Your task to perform on an android device: empty trash in google photos Image 0: 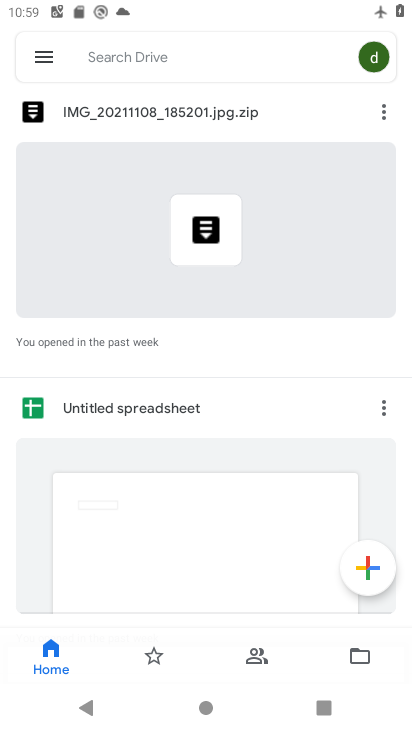
Step 0: press home button
Your task to perform on an android device: empty trash in google photos Image 1: 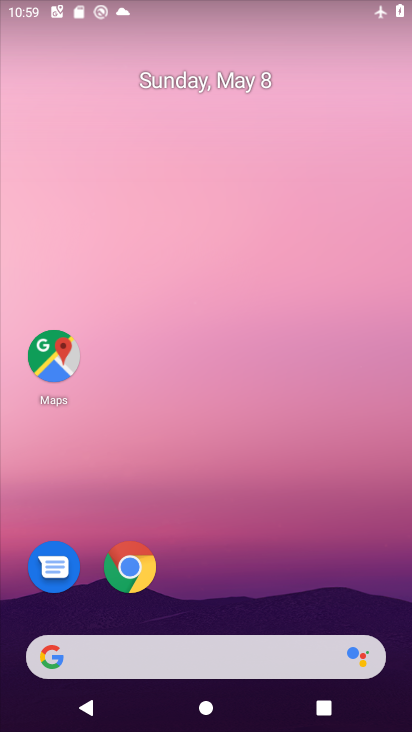
Step 1: drag from (307, 595) to (231, 40)
Your task to perform on an android device: empty trash in google photos Image 2: 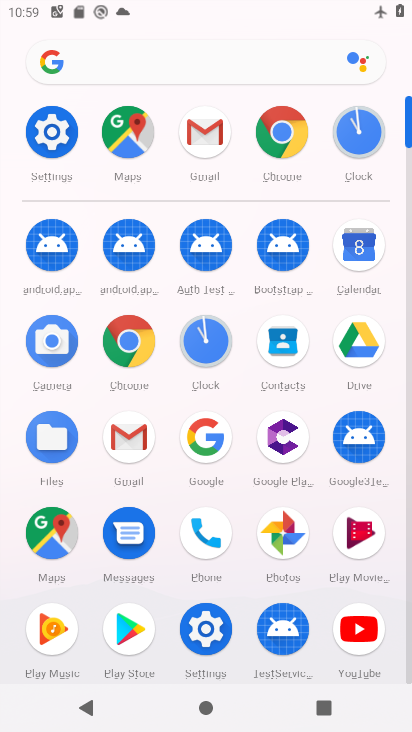
Step 2: click (293, 543)
Your task to perform on an android device: empty trash in google photos Image 3: 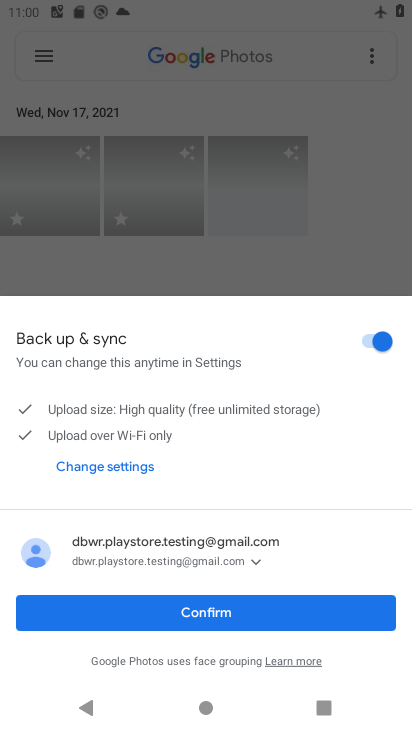
Step 3: click (176, 614)
Your task to perform on an android device: empty trash in google photos Image 4: 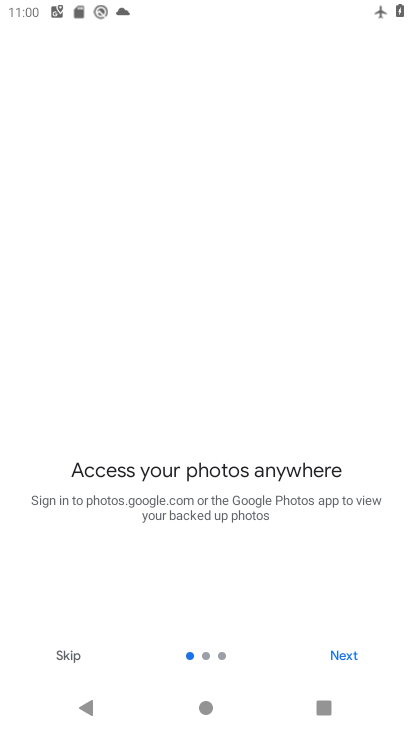
Step 4: click (333, 664)
Your task to perform on an android device: empty trash in google photos Image 5: 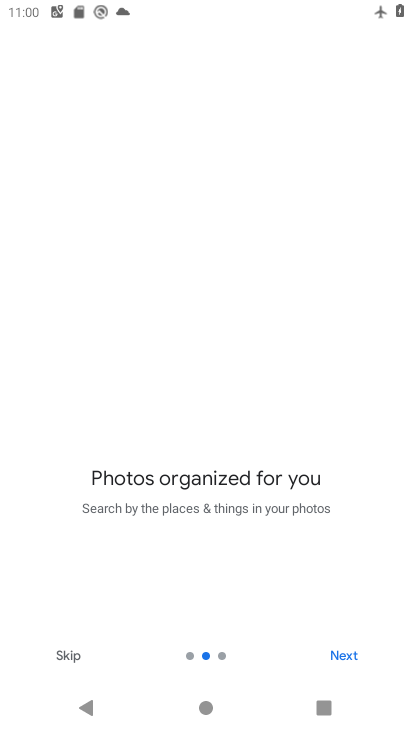
Step 5: click (368, 658)
Your task to perform on an android device: empty trash in google photos Image 6: 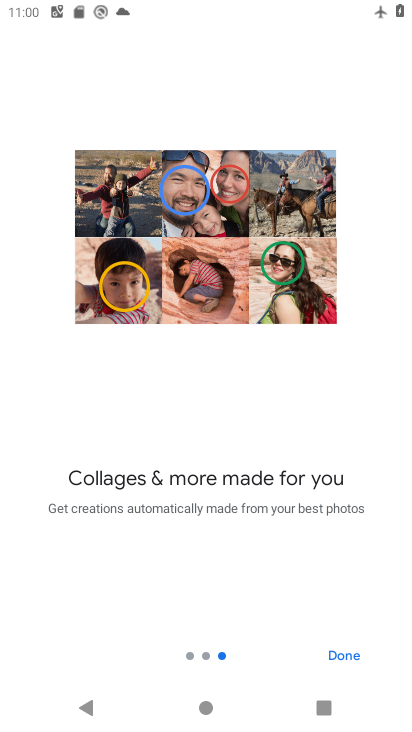
Step 6: click (354, 654)
Your task to perform on an android device: empty trash in google photos Image 7: 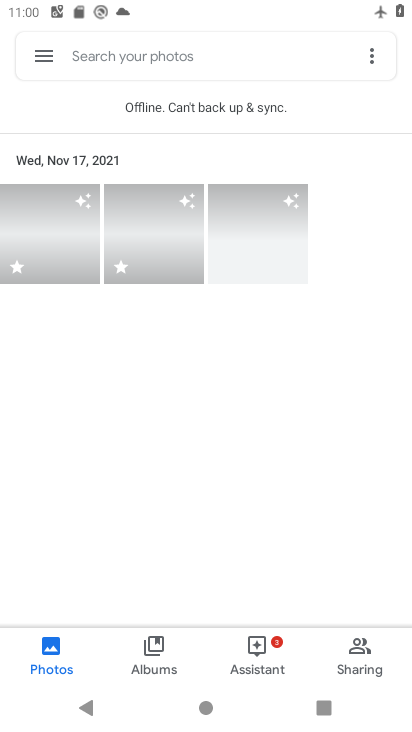
Step 7: click (42, 53)
Your task to perform on an android device: empty trash in google photos Image 8: 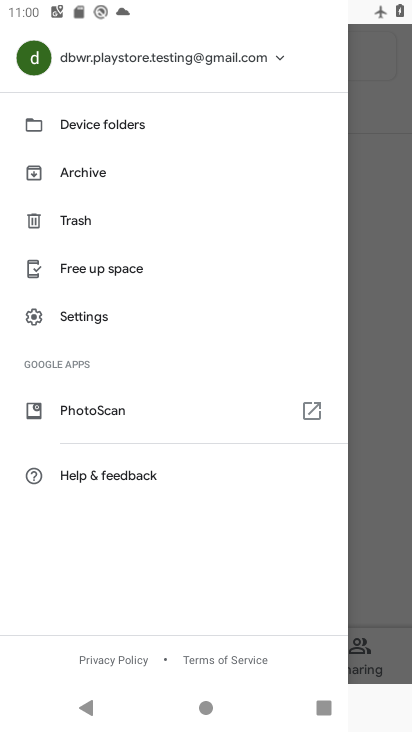
Step 8: click (75, 216)
Your task to perform on an android device: empty trash in google photos Image 9: 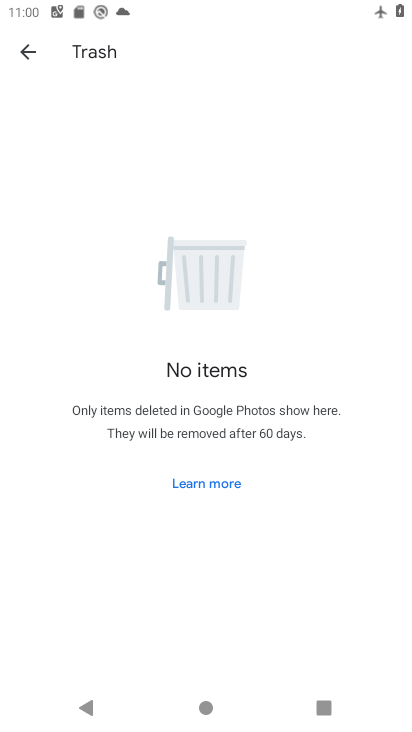
Step 9: task complete